Your task to perform on an android device: turn on airplane mode Image 0: 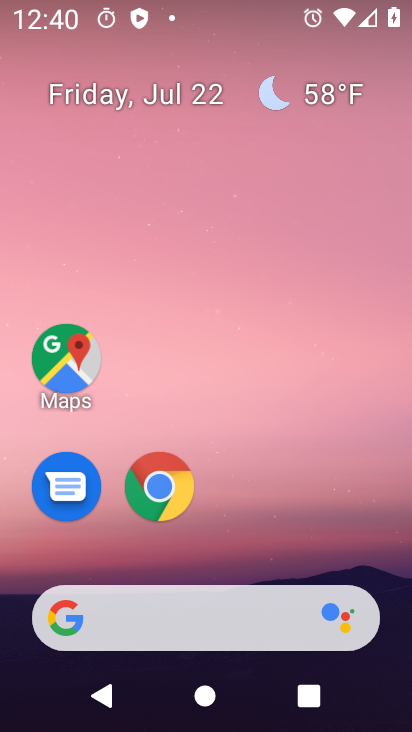
Step 0: press home button
Your task to perform on an android device: turn on airplane mode Image 1: 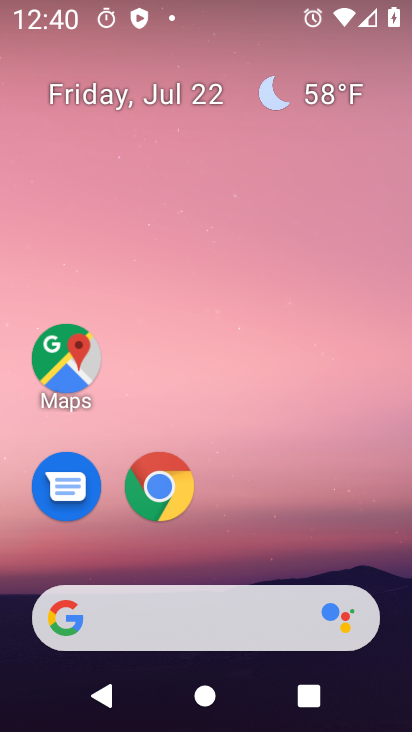
Step 1: drag from (361, 275) to (387, 96)
Your task to perform on an android device: turn on airplane mode Image 2: 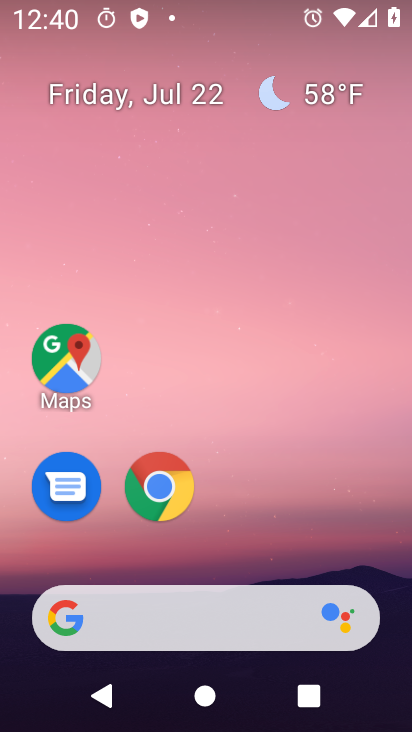
Step 2: drag from (287, 482) to (310, 141)
Your task to perform on an android device: turn on airplane mode Image 3: 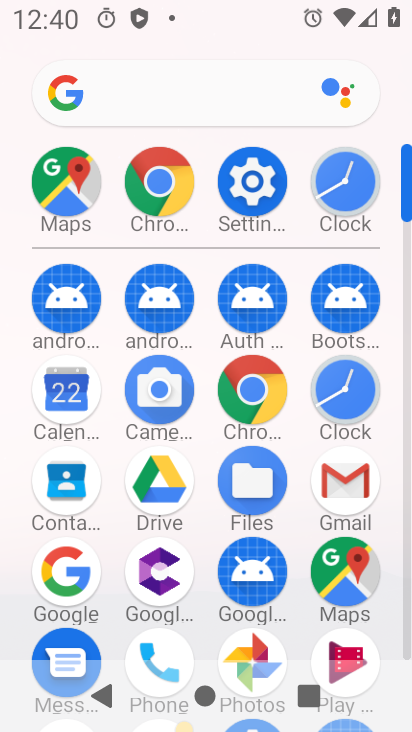
Step 3: click (249, 197)
Your task to perform on an android device: turn on airplane mode Image 4: 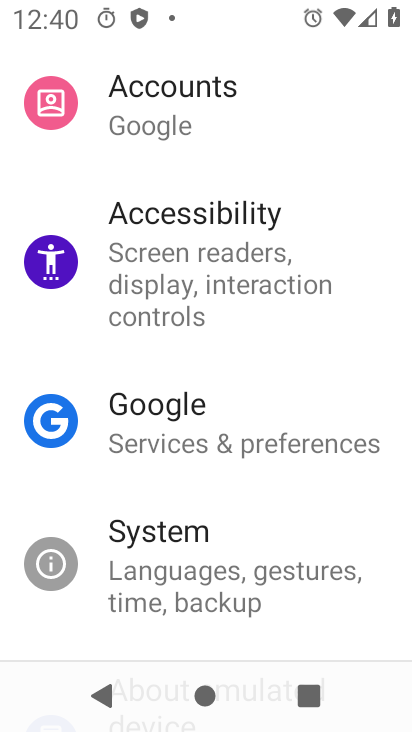
Step 4: drag from (332, 159) to (362, 315)
Your task to perform on an android device: turn on airplane mode Image 5: 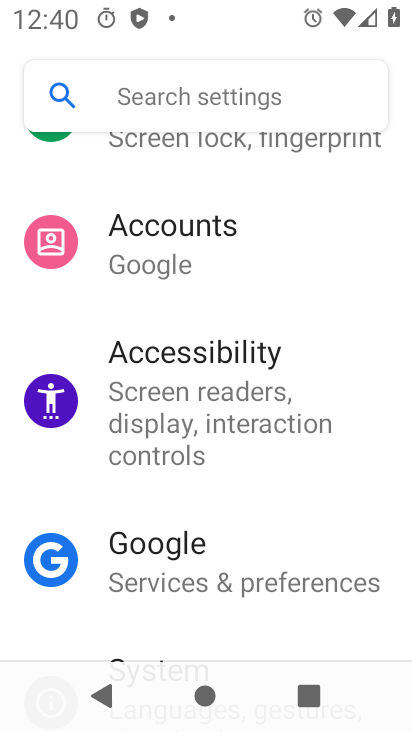
Step 5: drag from (348, 227) to (358, 373)
Your task to perform on an android device: turn on airplane mode Image 6: 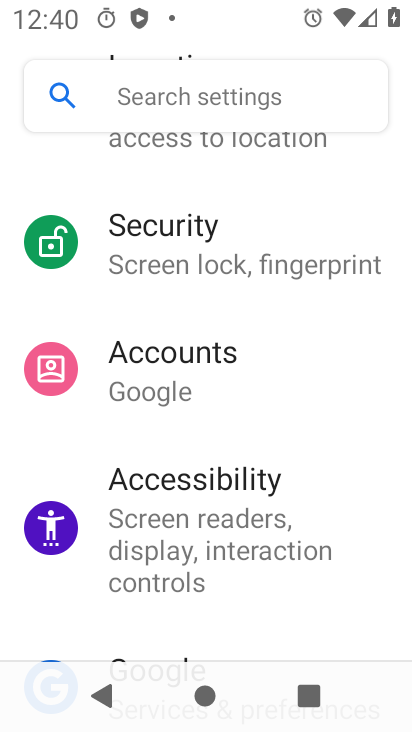
Step 6: drag from (357, 308) to (363, 438)
Your task to perform on an android device: turn on airplane mode Image 7: 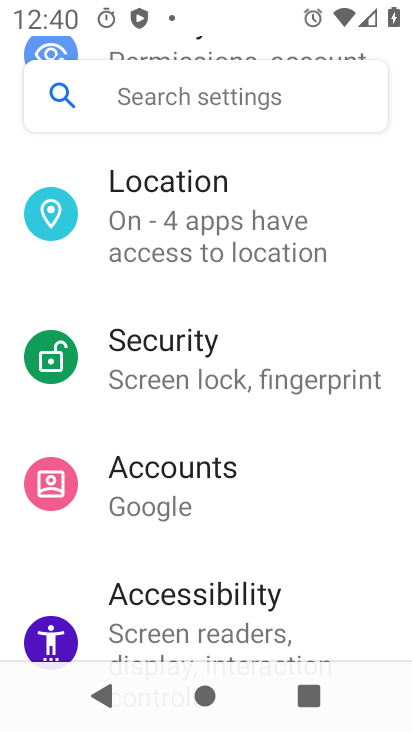
Step 7: drag from (349, 257) to (355, 411)
Your task to perform on an android device: turn on airplane mode Image 8: 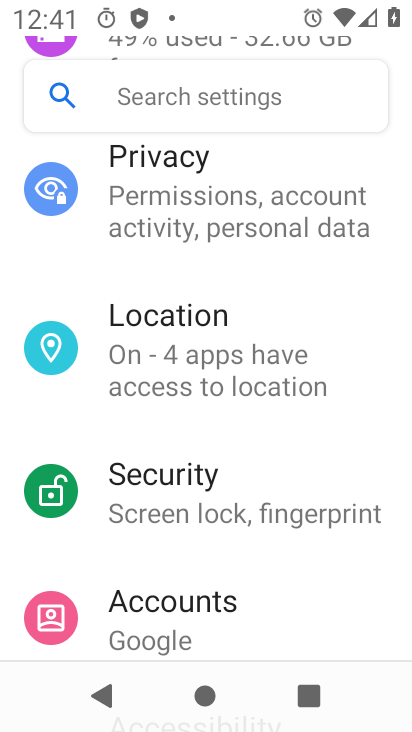
Step 8: drag from (352, 293) to (356, 375)
Your task to perform on an android device: turn on airplane mode Image 9: 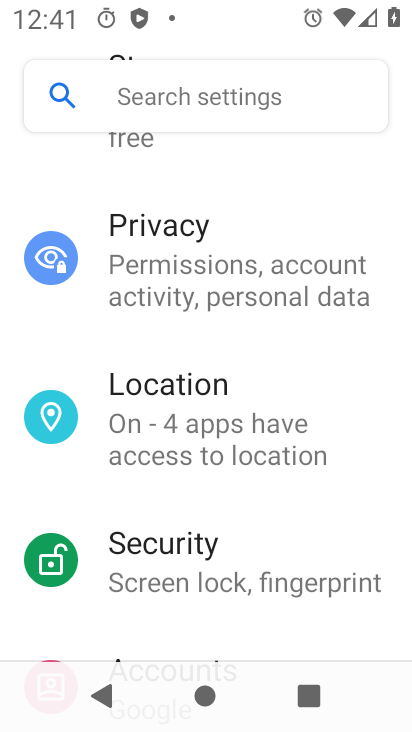
Step 9: drag from (366, 196) to (375, 385)
Your task to perform on an android device: turn on airplane mode Image 10: 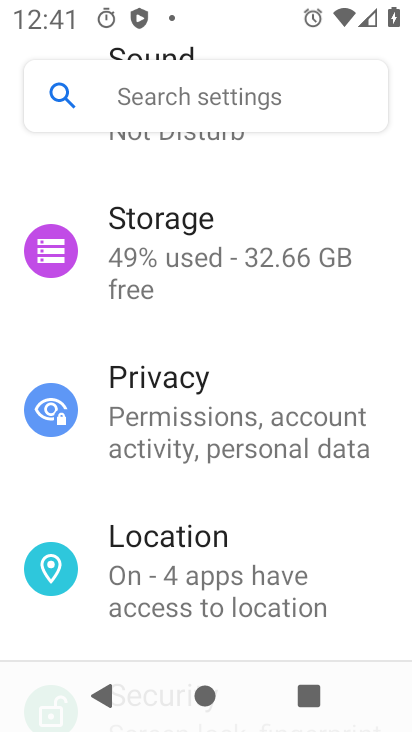
Step 10: drag from (363, 187) to (371, 409)
Your task to perform on an android device: turn on airplane mode Image 11: 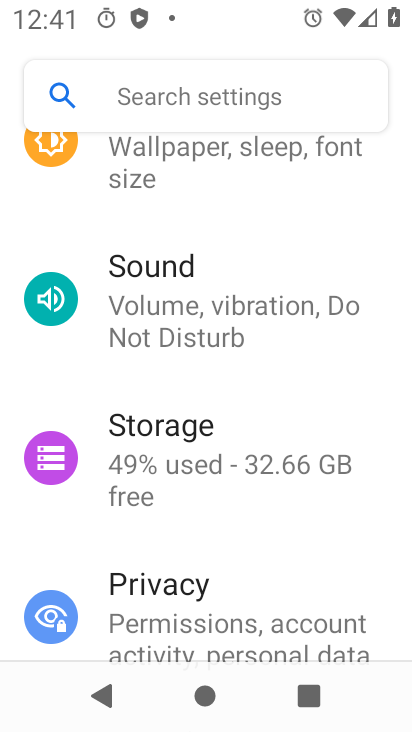
Step 11: drag from (348, 189) to (363, 356)
Your task to perform on an android device: turn on airplane mode Image 12: 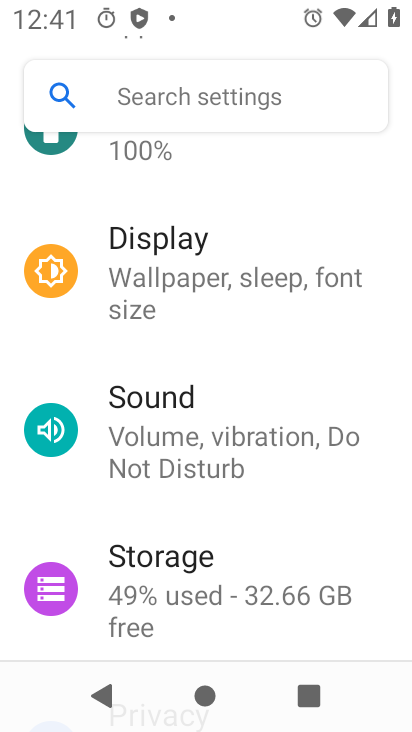
Step 12: drag from (353, 182) to (353, 359)
Your task to perform on an android device: turn on airplane mode Image 13: 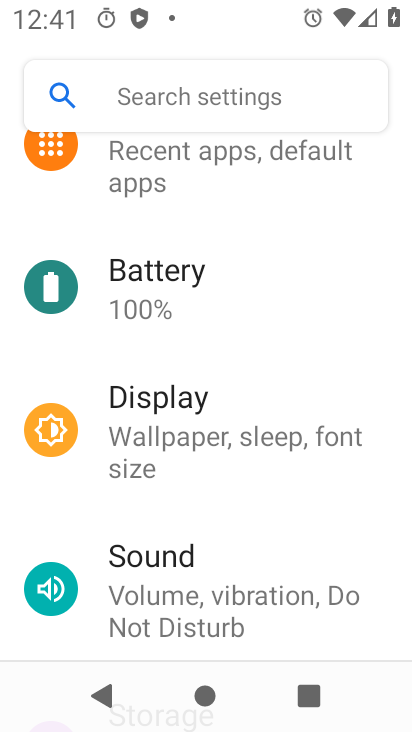
Step 13: drag from (340, 210) to (340, 412)
Your task to perform on an android device: turn on airplane mode Image 14: 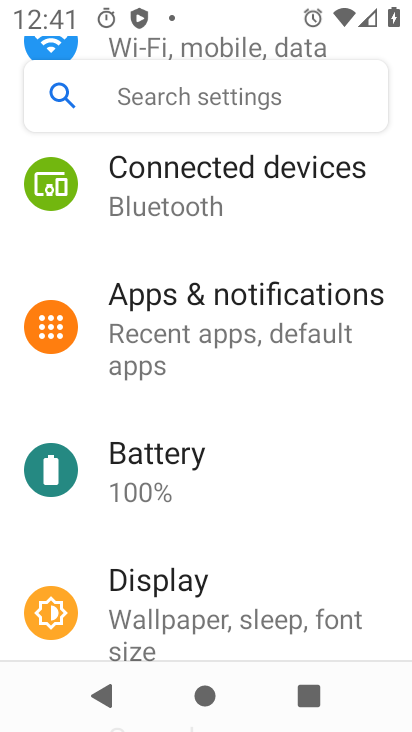
Step 14: drag from (382, 221) to (371, 412)
Your task to perform on an android device: turn on airplane mode Image 15: 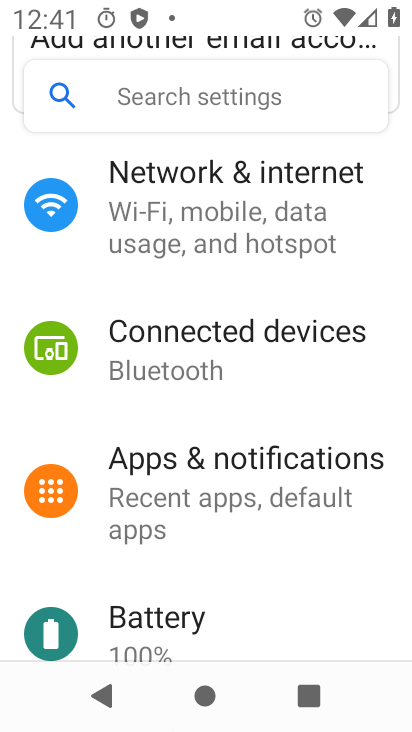
Step 15: drag from (389, 234) to (375, 348)
Your task to perform on an android device: turn on airplane mode Image 16: 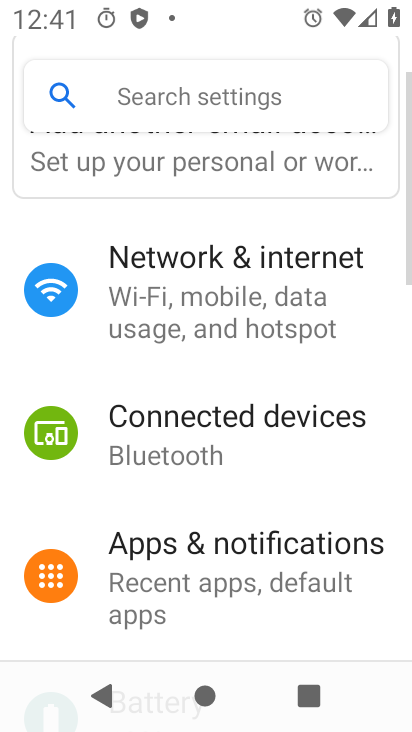
Step 16: click (282, 289)
Your task to perform on an android device: turn on airplane mode Image 17: 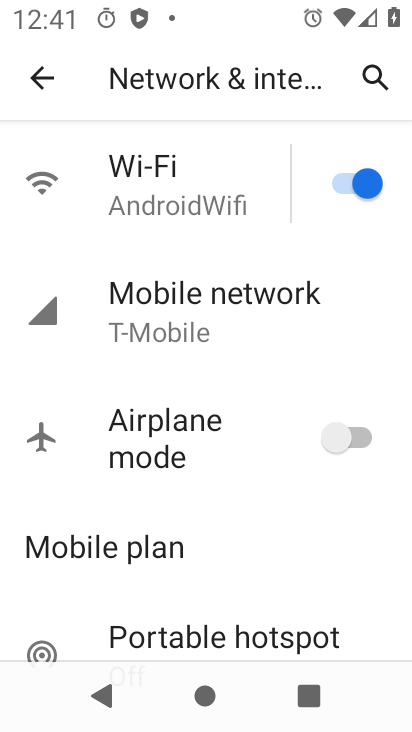
Step 17: click (366, 434)
Your task to perform on an android device: turn on airplane mode Image 18: 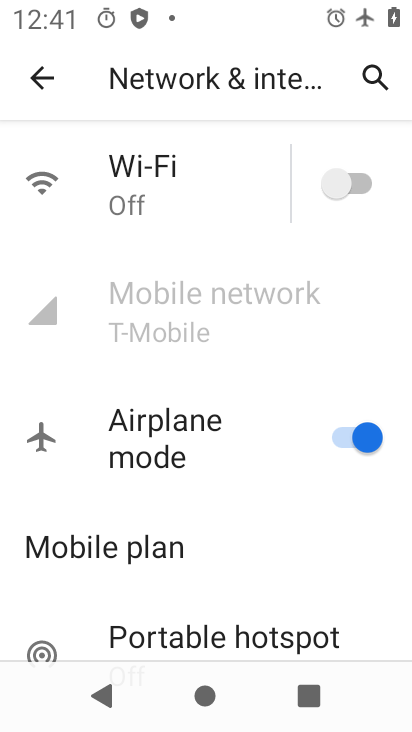
Step 18: task complete